Your task to perform on an android device: turn off priority inbox in the gmail app Image 0: 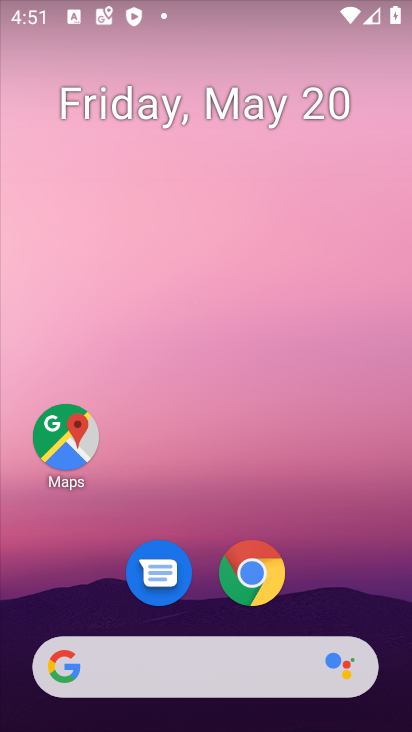
Step 0: drag from (396, 631) to (317, 135)
Your task to perform on an android device: turn off priority inbox in the gmail app Image 1: 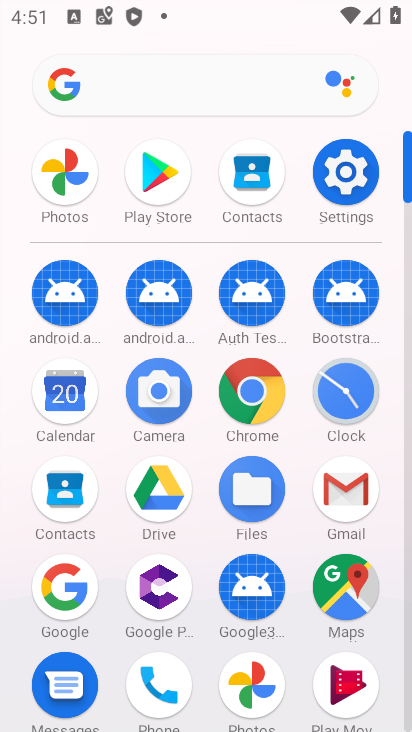
Step 1: click (408, 710)
Your task to perform on an android device: turn off priority inbox in the gmail app Image 2: 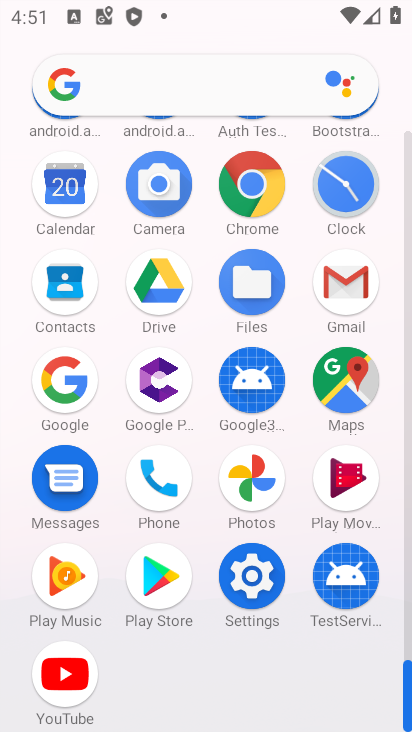
Step 2: click (347, 280)
Your task to perform on an android device: turn off priority inbox in the gmail app Image 3: 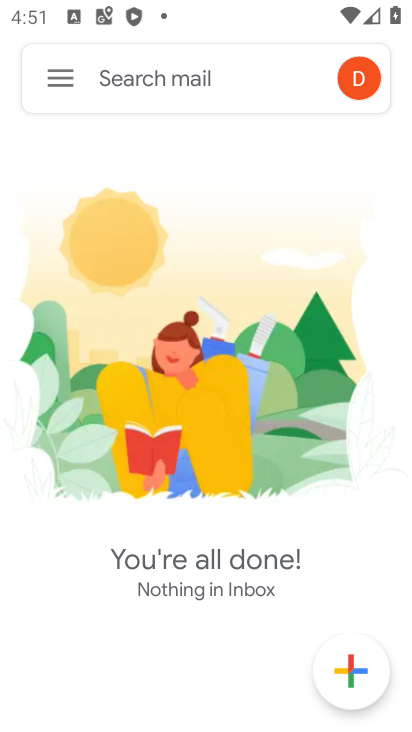
Step 3: click (64, 73)
Your task to perform on an android device: turn off priority inbox in the gmail app Image 4: 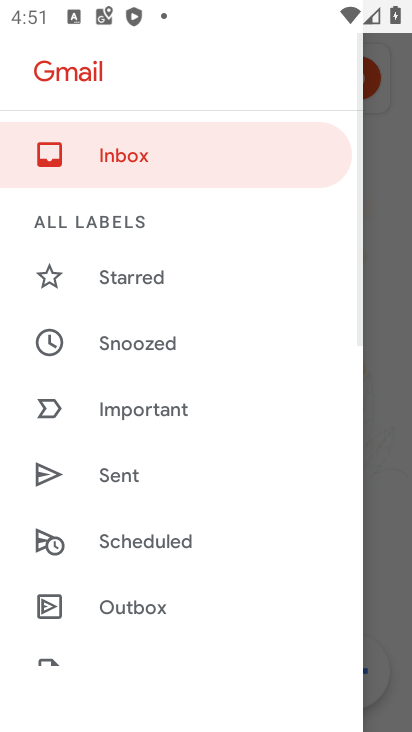
Step 4: drag from (255, 512) to (227, 106)
Your task to perform on an android device: turn off priority inbox in the gmail app Image 5: 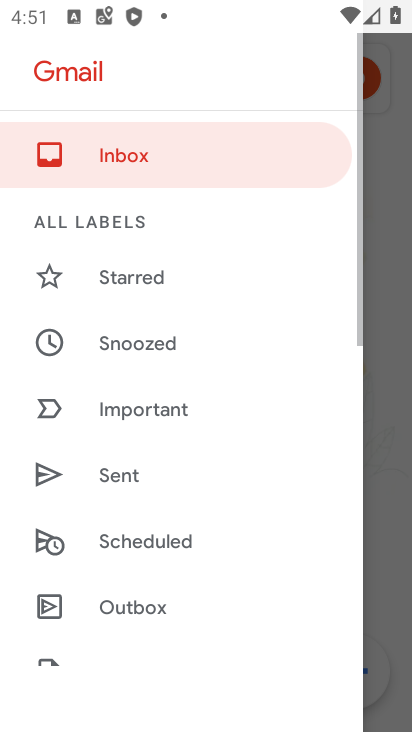
Step 5: drag from (231, 677) to (240, 188)
Your task to perform on an android device: turn off priority inbox in the gmail app Image 6: 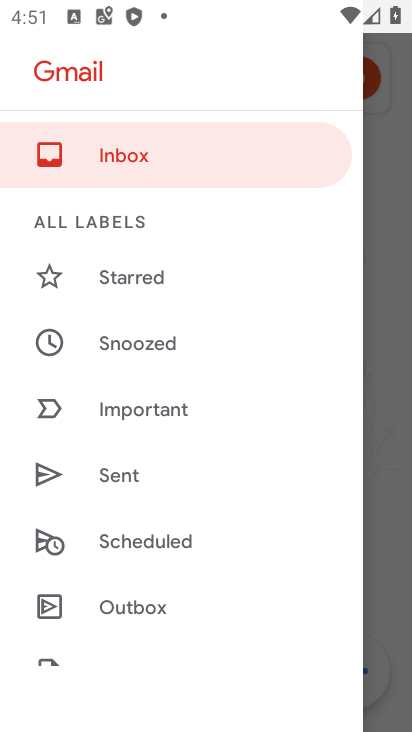
Step 6: drag from (187, 600) to (219, 88)
Your task to perform on an android device: turn off priority inbox in the gmail app Image 7: 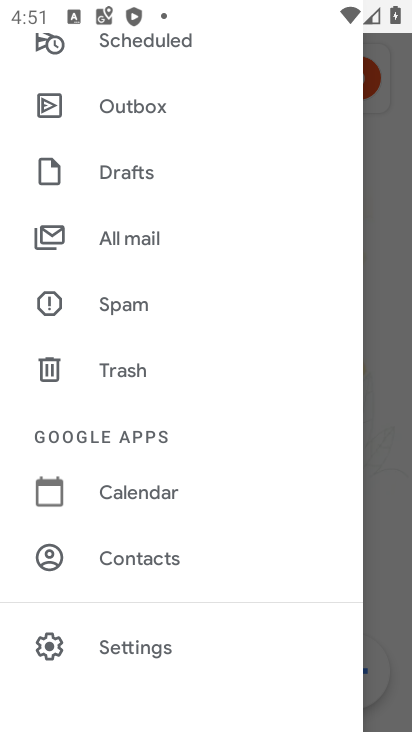
Step 7: click (135, 628)
Your task to perform on an android device: turn off priority inbox in the gmail app Image 8: 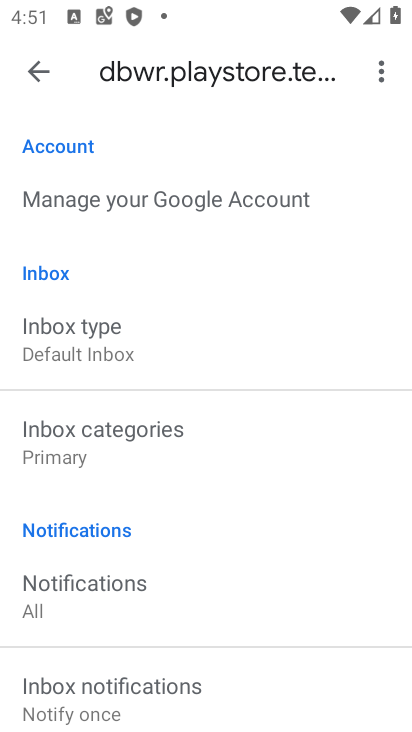
Step 8: click (72, 358)
Your task to perform on an android device: turn off priority inbox in the gmail app Image 9: 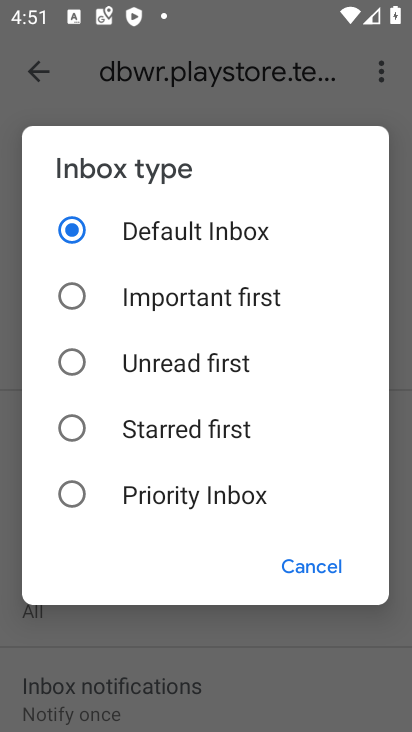
Step 9: task complete